Your task to perform on an android device: Go to accessibility settings Image 0: 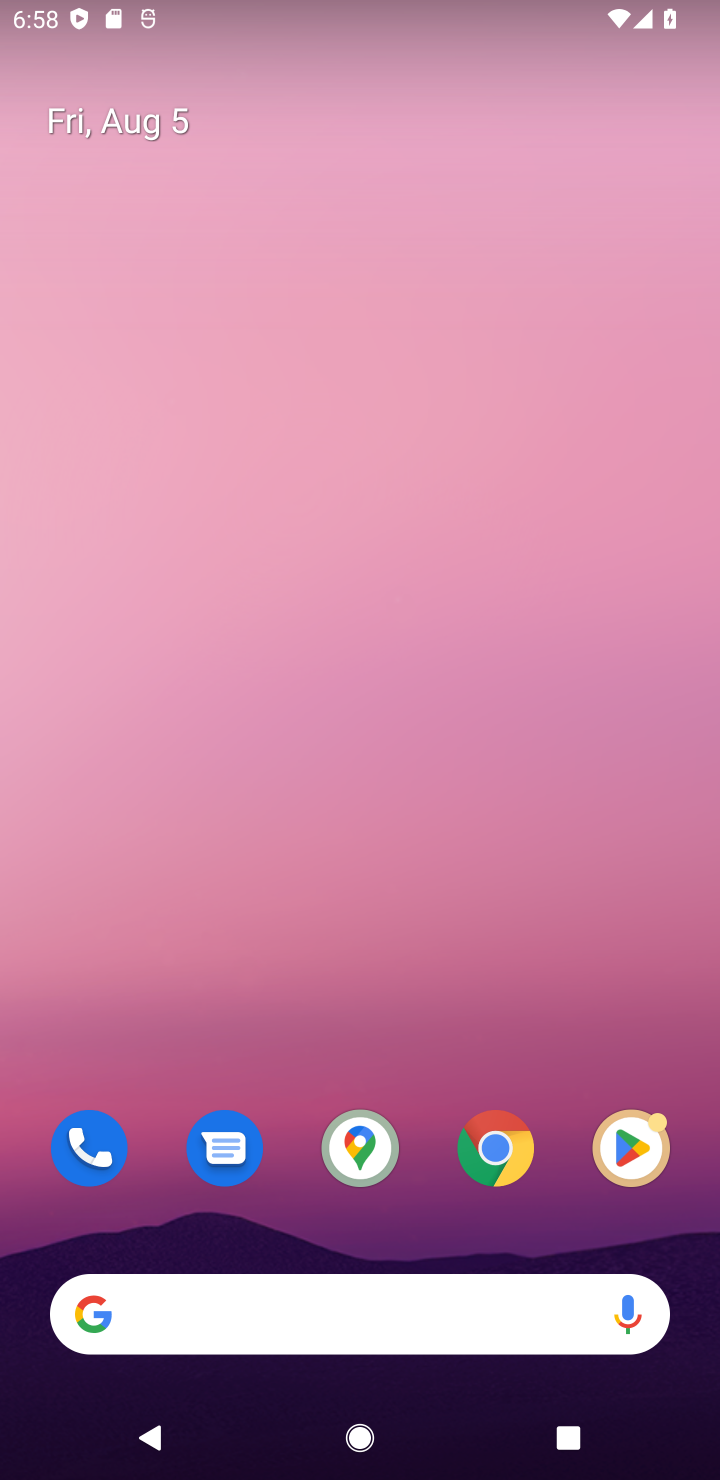
Step 0: drag from (469, 1120) to (558, 97)
Your task to perform on an android device: Go to accessibility settings Image 1: 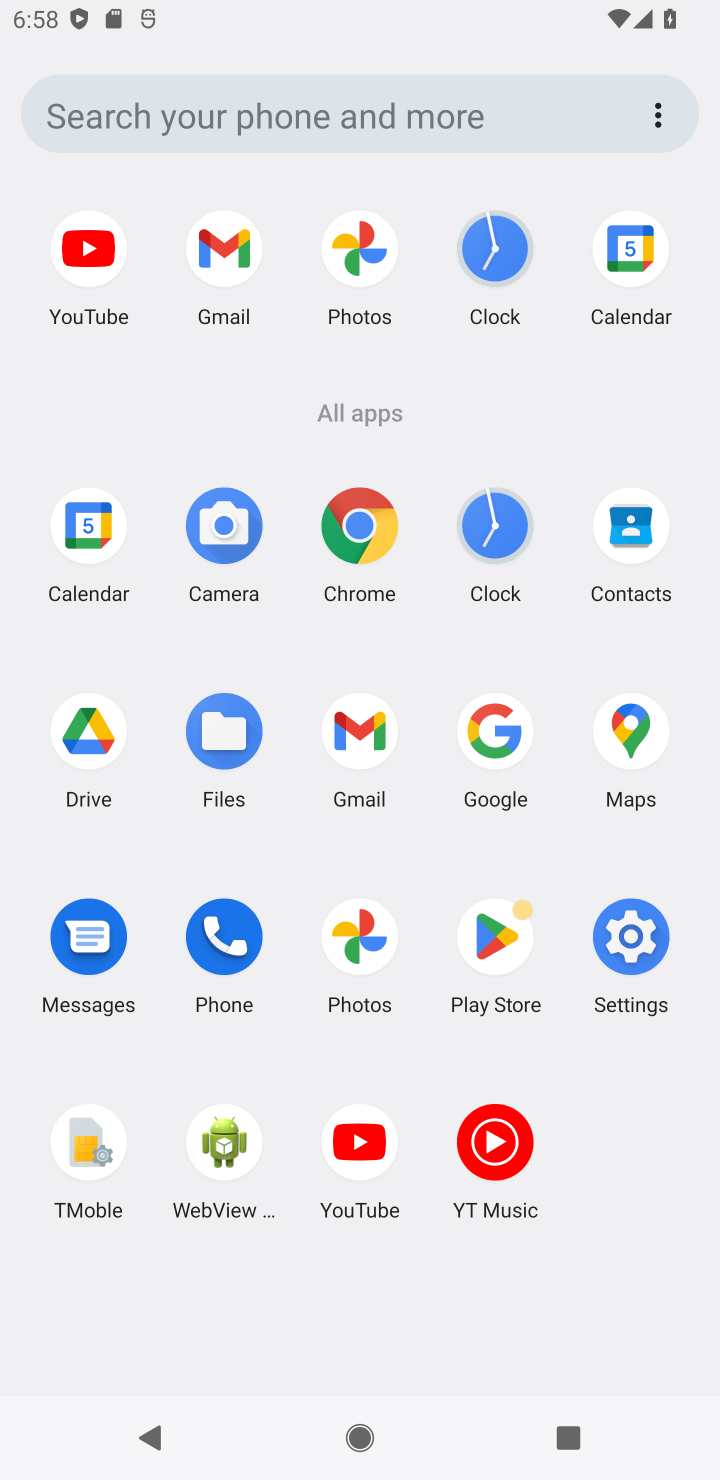
Step 1: click (655, 903)
Your task to perform on an android device: Go to accessibility settings Image 2: 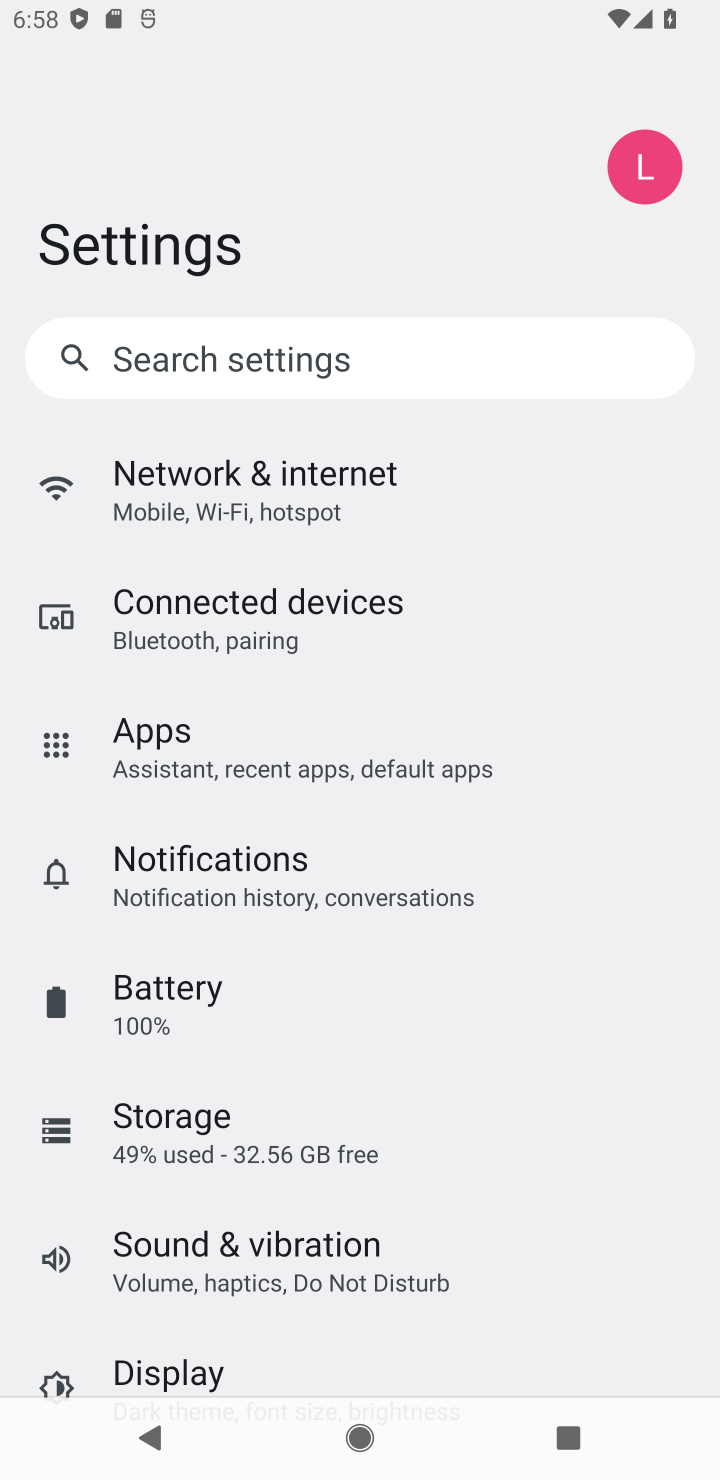
Step 2: drag from (452, 1066) to (370, 253)
Your task to perform on an android device: Go to accessibility settings Image 3: 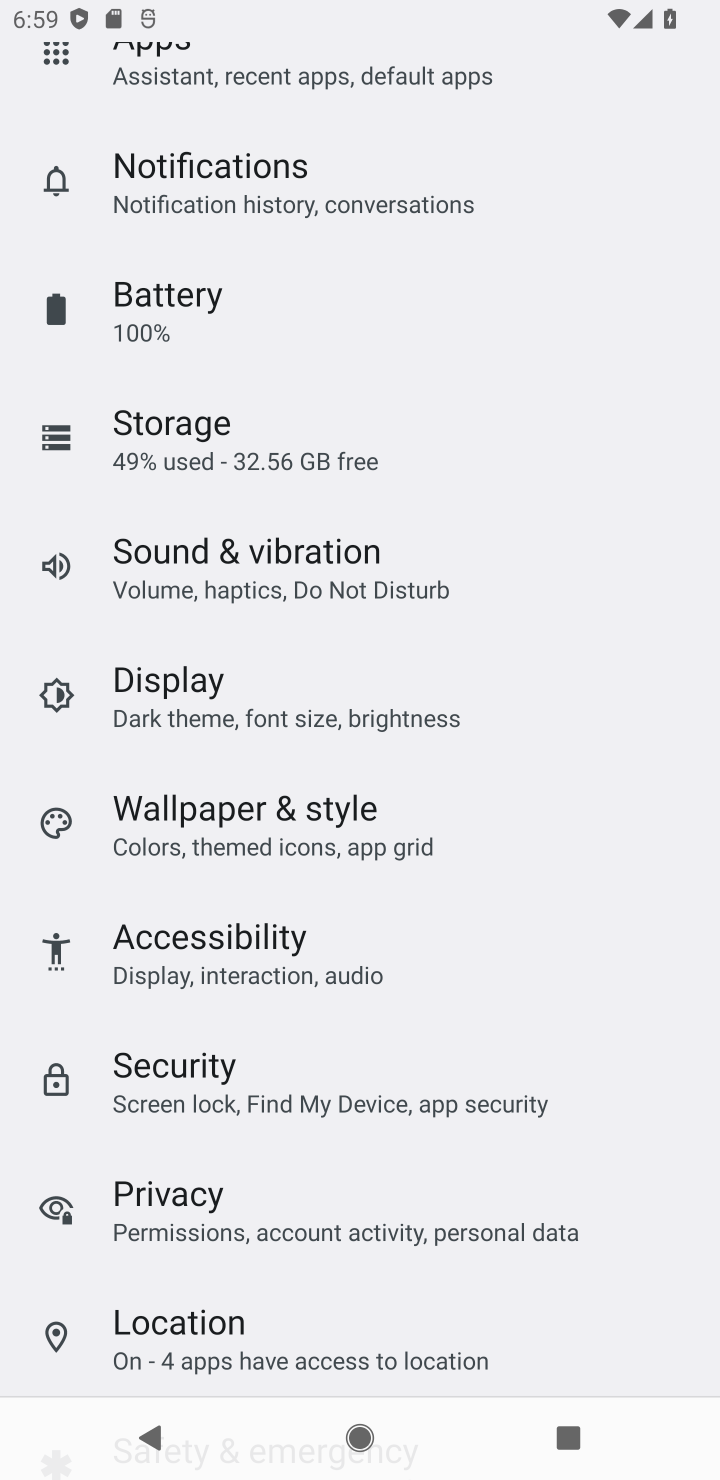
Step 3: drag from (427, 1136) to (431, 773)
Your task to perform on an android device: Go to accessibility settings Image 4: 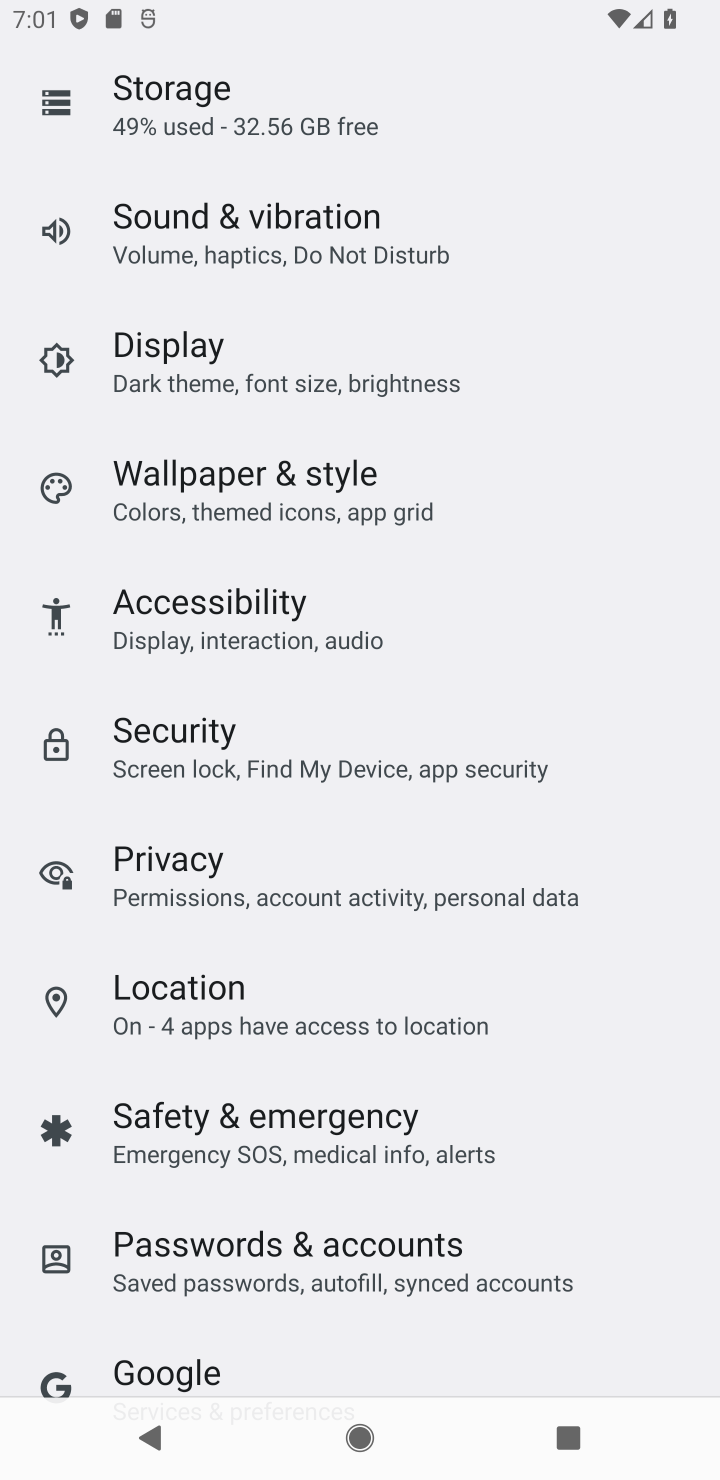
Step 4: click (366, 593)
Your task to perform on an android device: Go to accessibility settings Image 5: 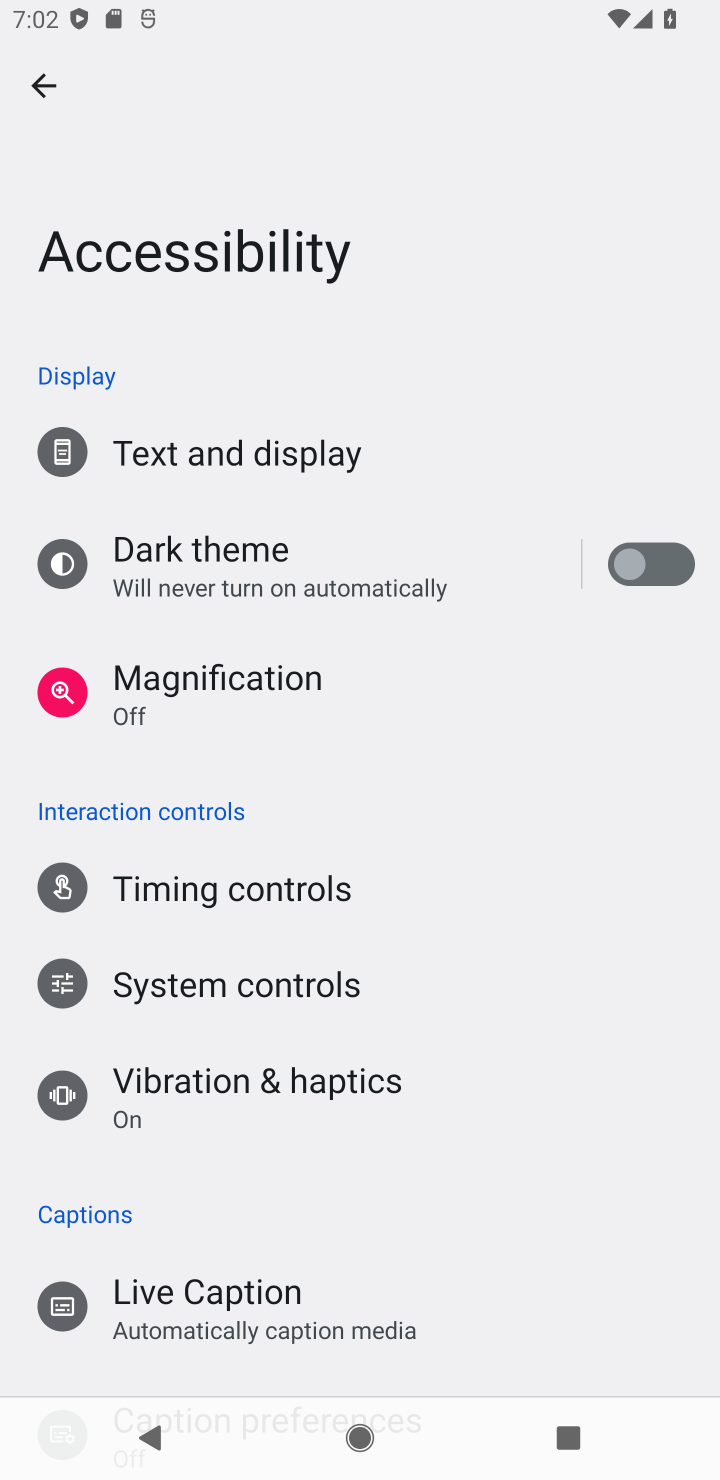
Step 5: task complete